Your task to perform on an android device: toggle location history Image 0: 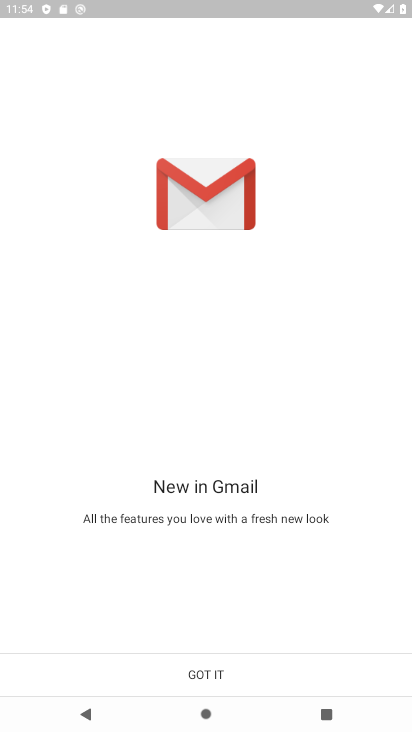
Step 0: press home button
Your task to perform on an android device: toggle location history Image 1: 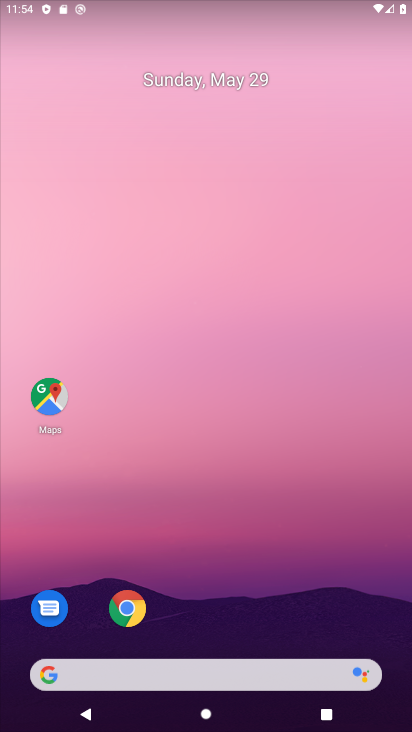
Step 1: drag from (217, 591) to (282, 0)
Your task to perform on an android device: toggle location history Image 2: 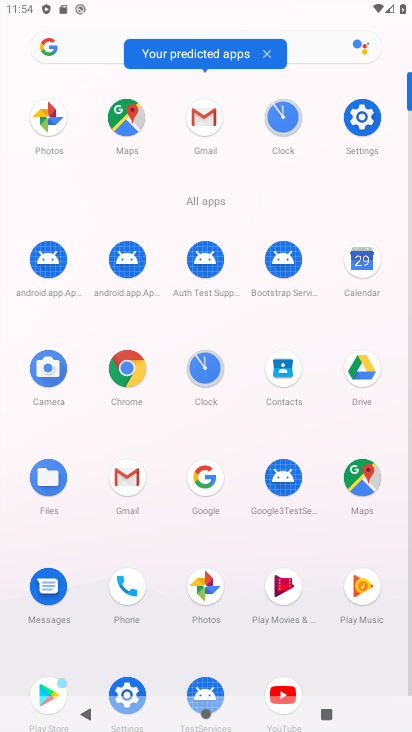
Step 2: click (364, 140)
Your task to perform on an android device: toggle location history Image 3: 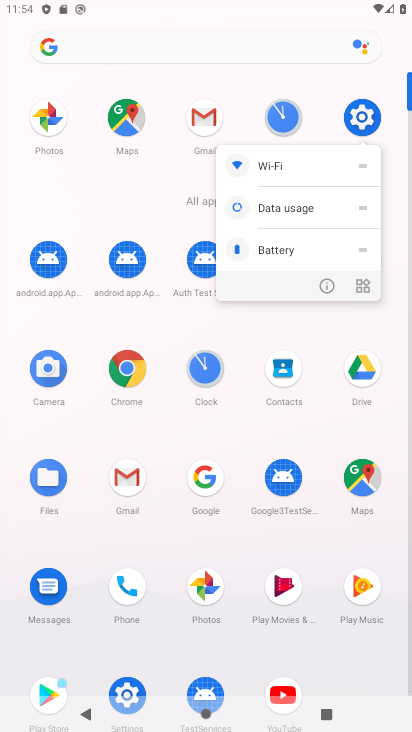
Step 3: click (356, 120)
Your task to perform on an android device: toggle location history Image 4: 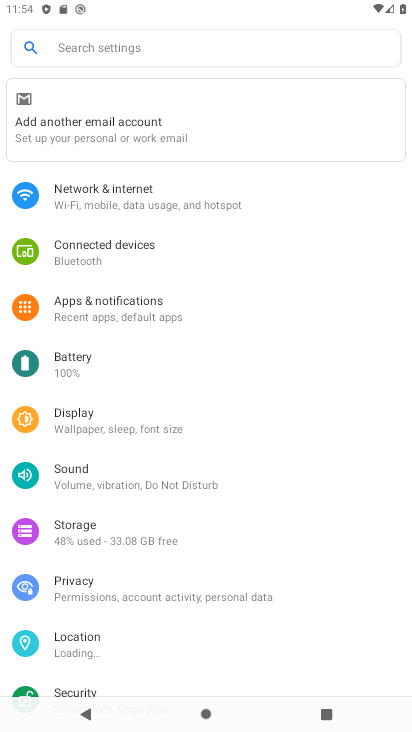
Step 4: click (83, 649)
Your task to perform on an android device: toggle location history Image 5: 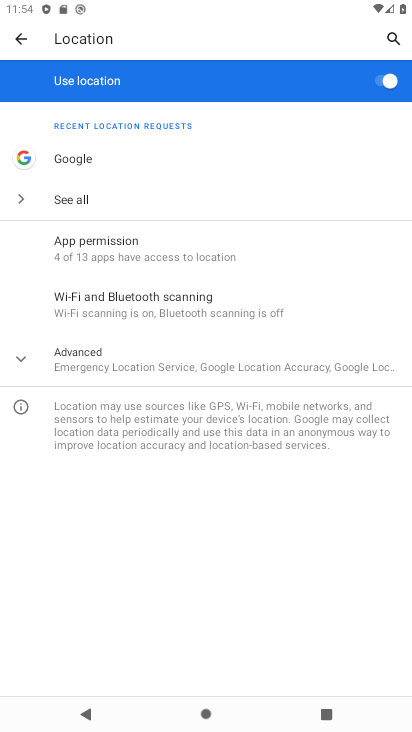
Step 5: click (134, 367)
Your task to perform on an android device: toggle location history Image 6: 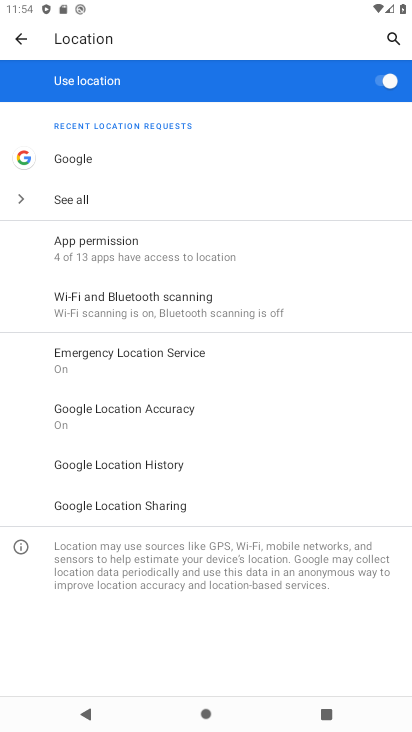
Step 6: click (177, 470)
Your task to perform on an android device: toggle location history Image 7: 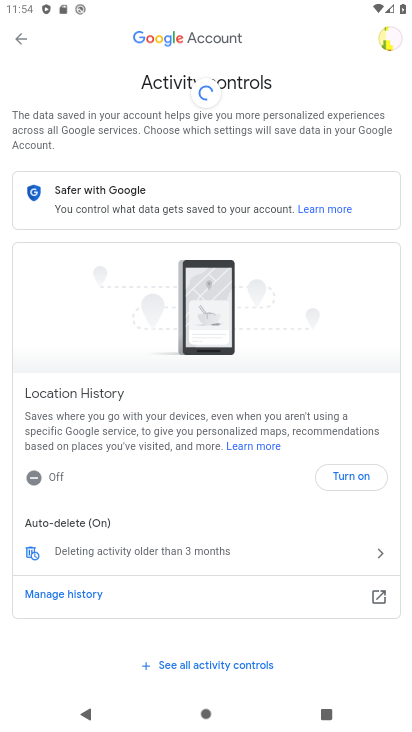
Step 7: click (363, 475)
Your task to perform on an android device: toggle location history Image 8: 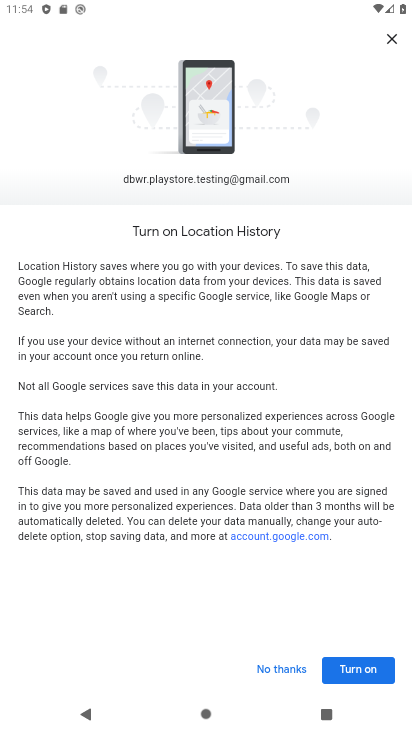
Step 8: click (356, 673)
Your task to perform on an android device: toggle location history Image 9: 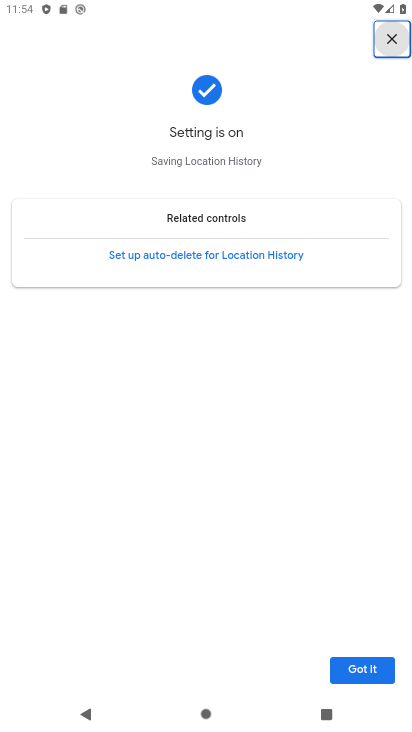
Step 9: click (357, 669)
Your task to perform on an android device: toggle location history Image 10: 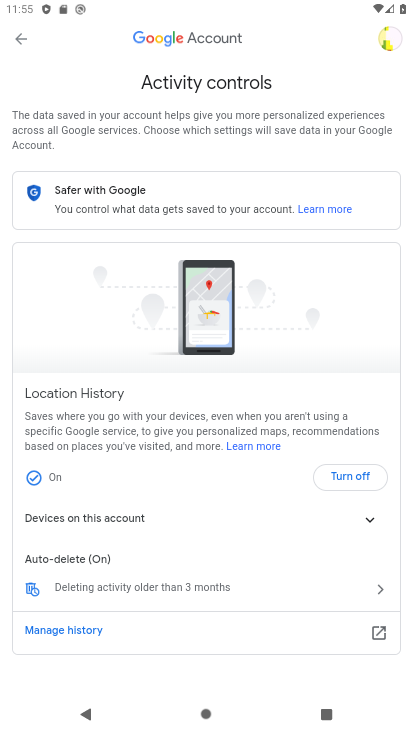
Step 10: task complete